Your task to perform on an android device: check battery use Image 0: 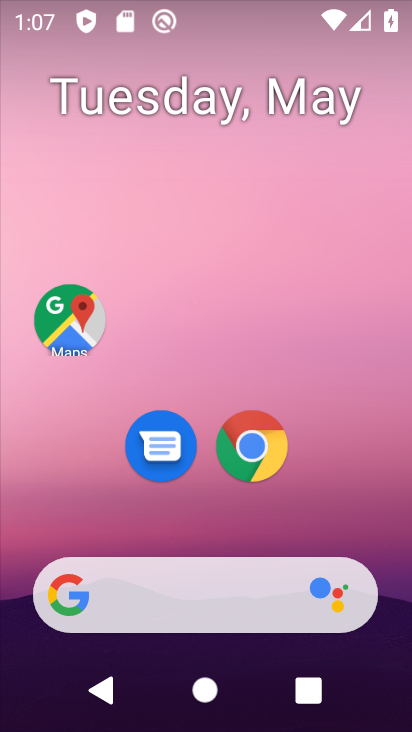
Step 0: drag from (180, 515) to (240, 27)
Your task to perform on an android device: check battery use Image 1: 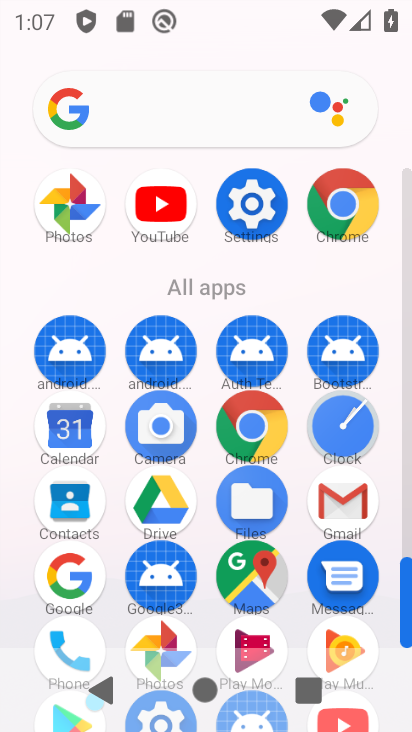
Step 1: click (247, 210)
Your task to perform on an android device: check battery use Image 2: 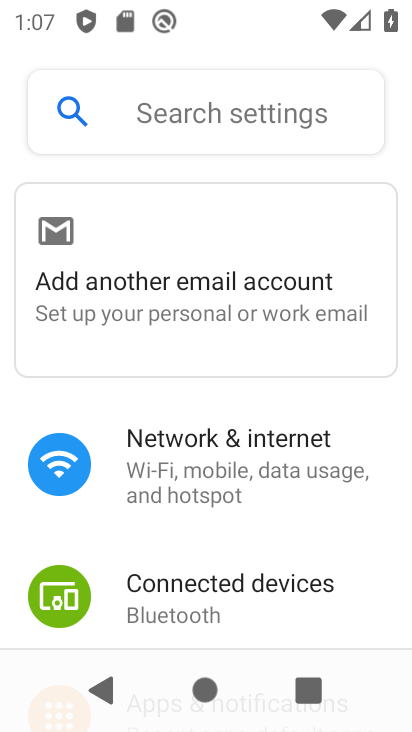
Step 2: drag from (119, 530) to (109, 52)
Your task to perform on an android device: check battery use Image 3: 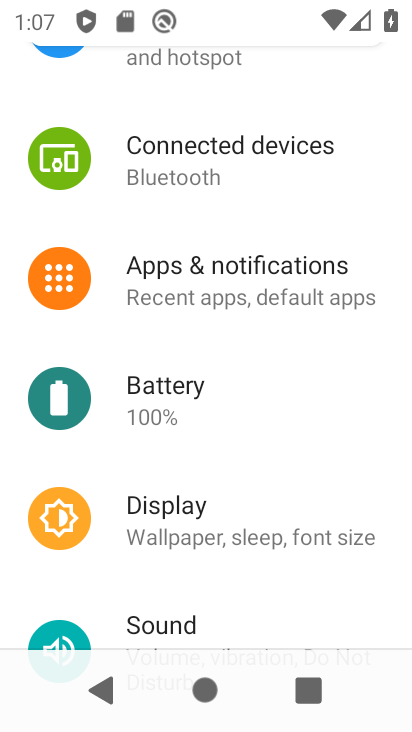
Step 3: click (143, 427)
Your task to perform on an android device: check battery use Image 4: 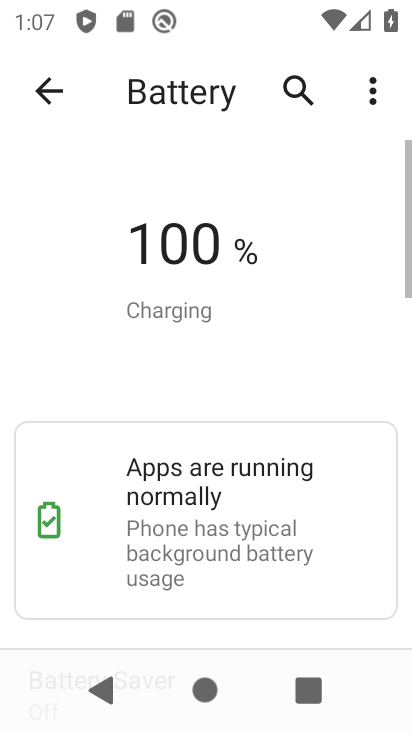
Step 4: click (365, 95)
Your task to perform on an android device: check battery use Image 5: 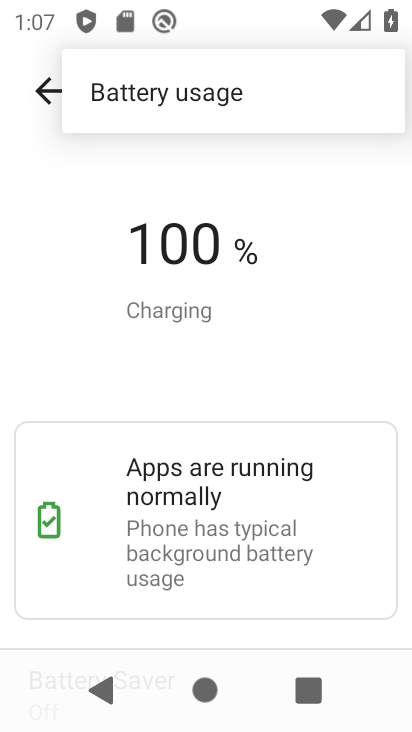
Step 5: click (180, 99)
Your task to perform on an android device: check battery use Image 6: 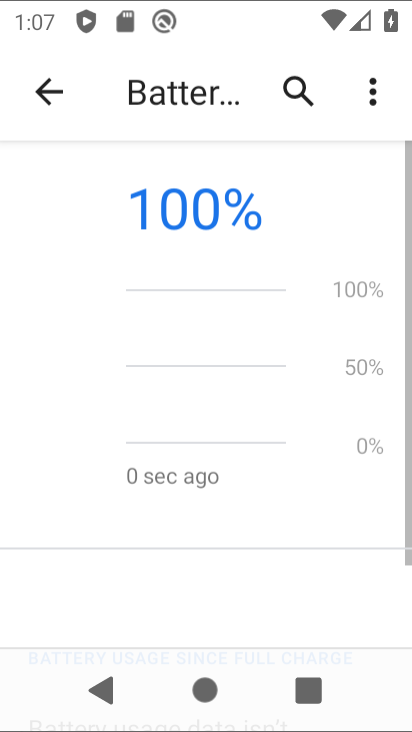
Step 6: task complete